Your task to perform on an android device: Do I have any events this weekend? Image 0: 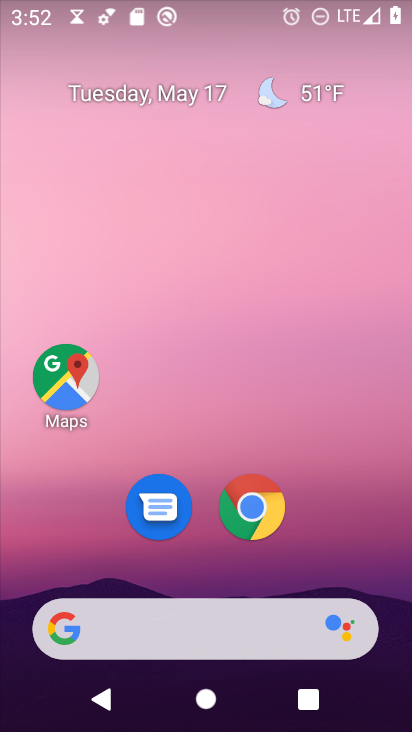
Step 0: drag from (307, 560) to (287, 174)
Your task to perform on an android device: Do I have any events this weekend? Image 1: 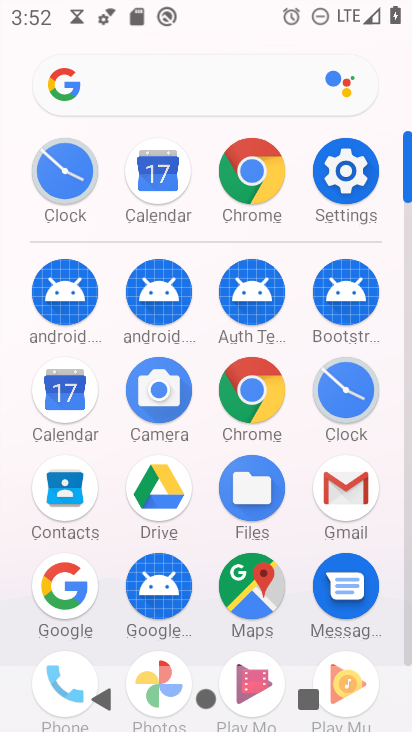
Step 1: click (69, 403)
Your task to perform on an android device: Do I have any events this weekend? Image 2: 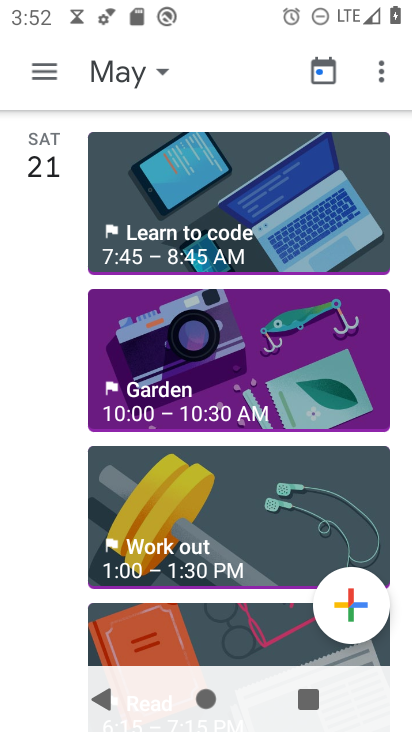
Step 2: click (117, 84)
Your task to perform on an android device: Do I have any events this weekend? Image 3: 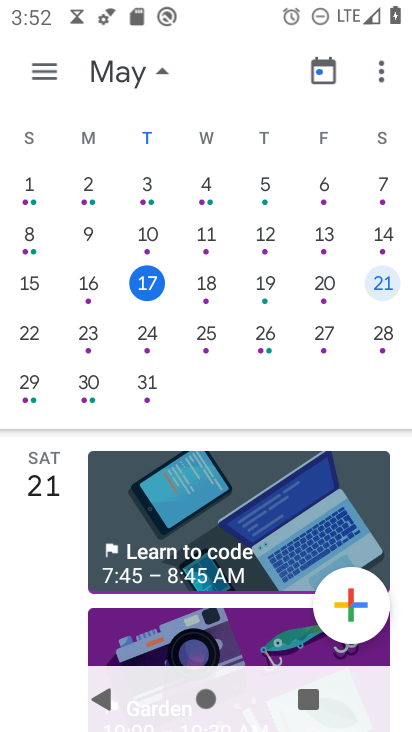
Step 3: click (375, 283)
Your task to perform on an android device: Do I have any events this weekend? Image 4: 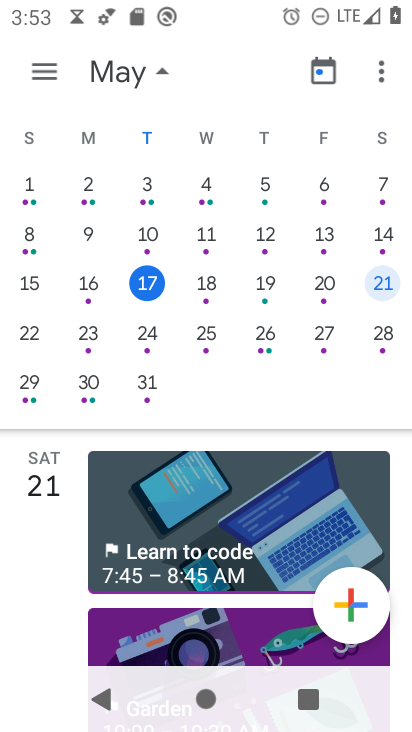
Step 4: task complete